Your task to perform on an android device: Open Google Chrome Image 0: 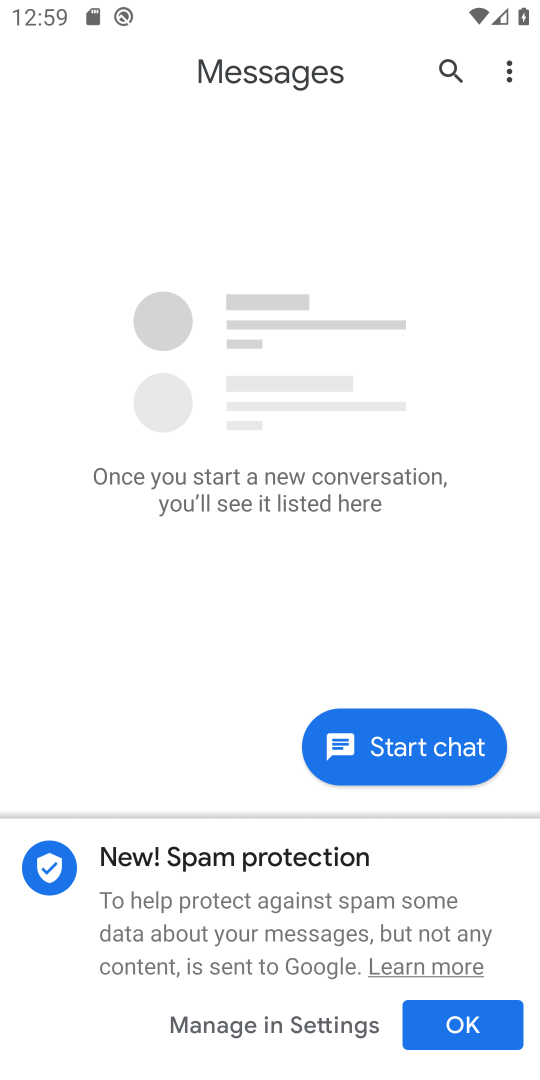
Step 0: press back button
Your task to perform on an android device: Open Google Chrome Image 1: 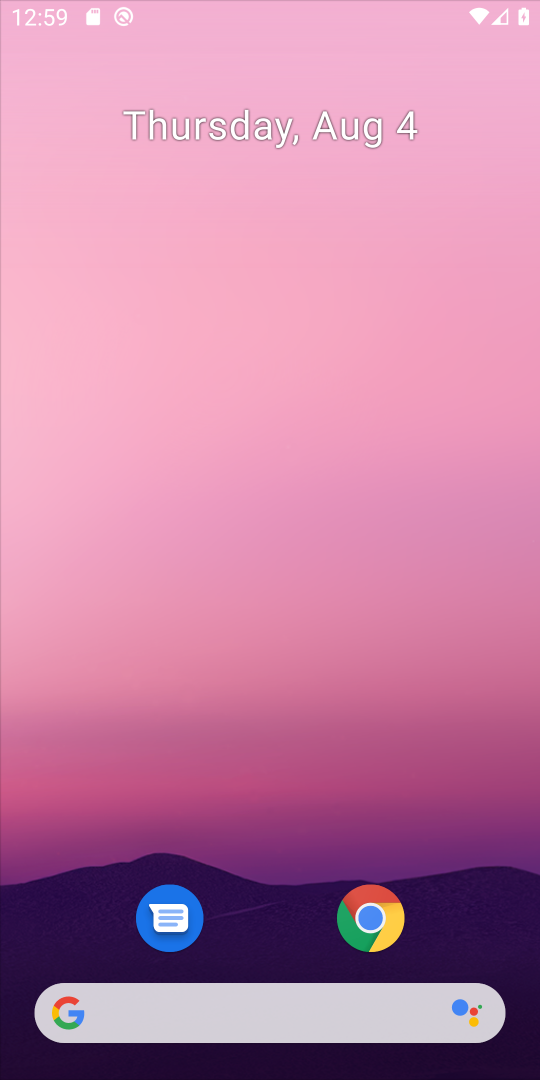
Step 1: press back button
Your task to perform on an android device: Open Google Chrome Image 2: 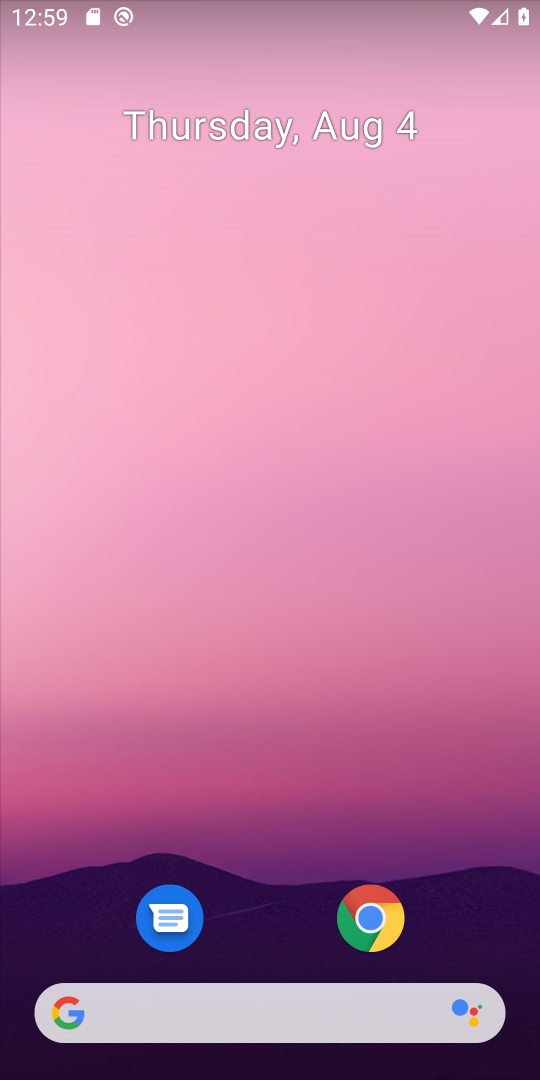
Step 2: click (368, 900)
Your task to perform on an android device: Open Google Chrome Image 3: 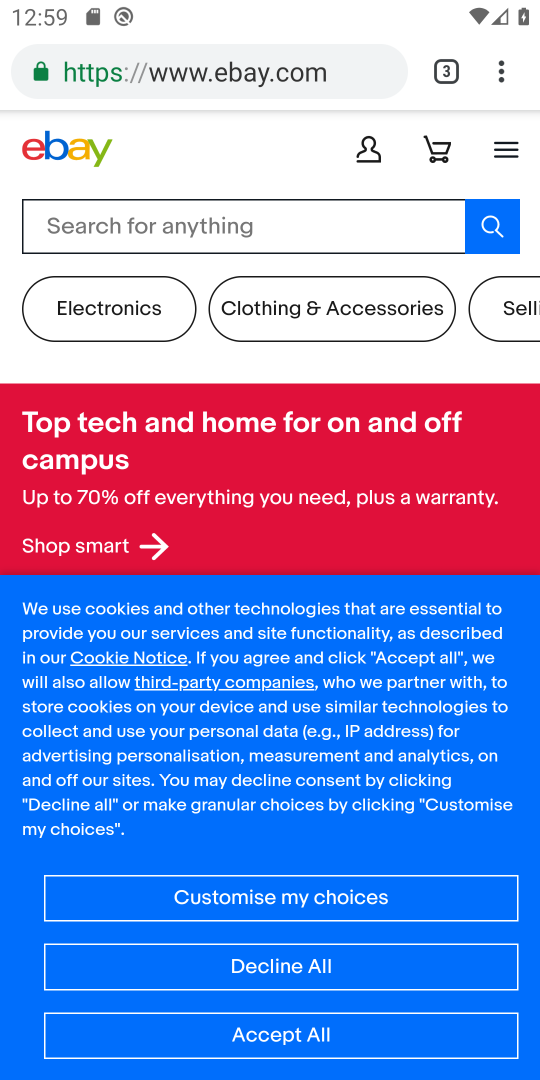
Step 3: task complete